Your task to perform on an android device: Do I have any events this weekend? Image 0: 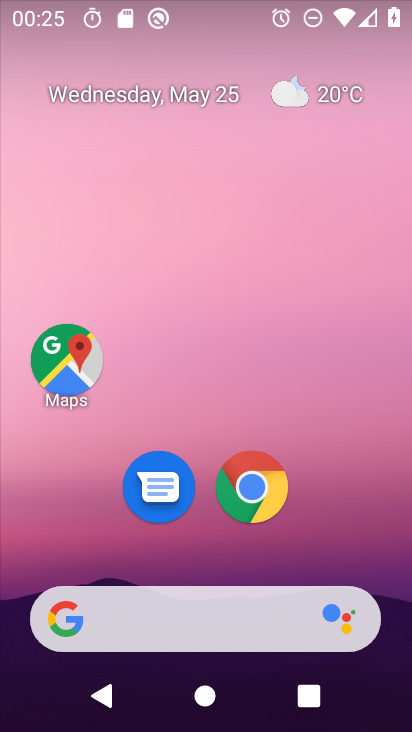
Step 0: drag from (357, 577) to (411, 30)
Your task to perform on an android device: Do I have any events this weekend? Image 1: 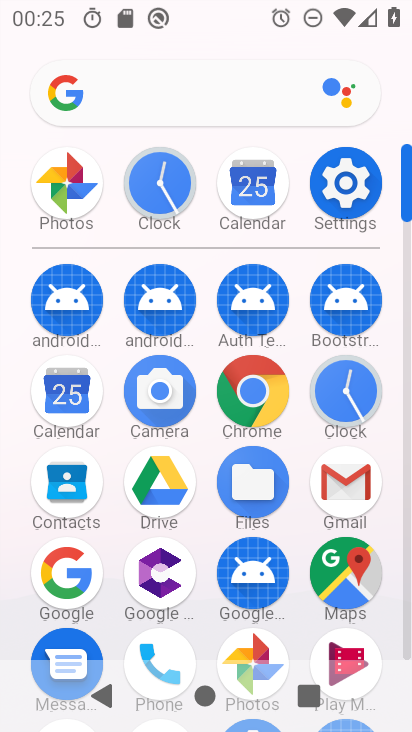
Step 1: click (54, 398)
Your task to perform on an android device: Do I have any events this weekend? Image 2: 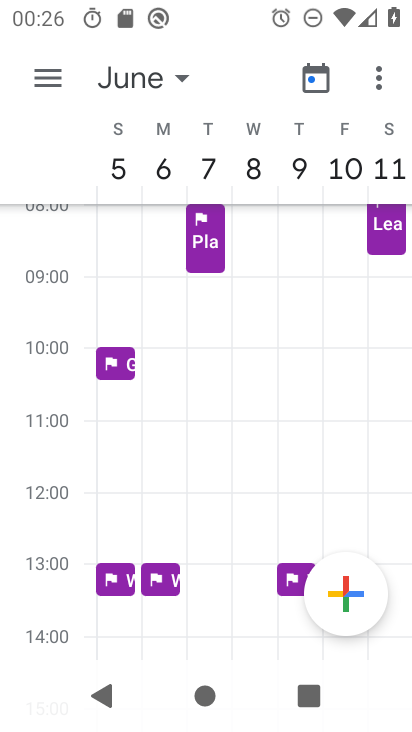
Step 2: click (323, 80)
Your task to perform on an android device: Do I have any events this weekend? Image 3: 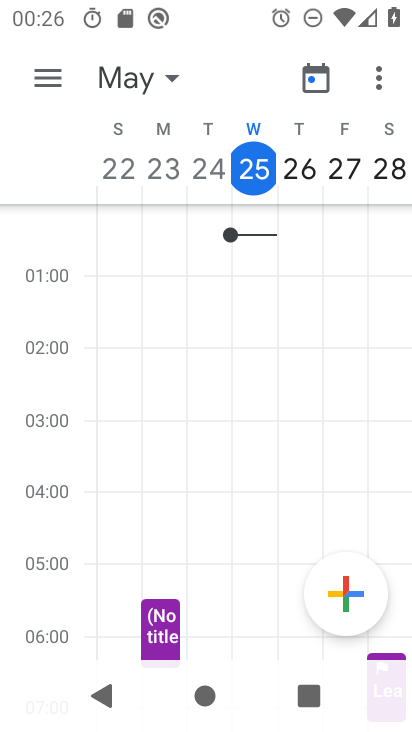
Step 3: drag from (307, 369) to (310, 163)
Your task to perform on an android device: Do I have any events this weekend? Image 4: 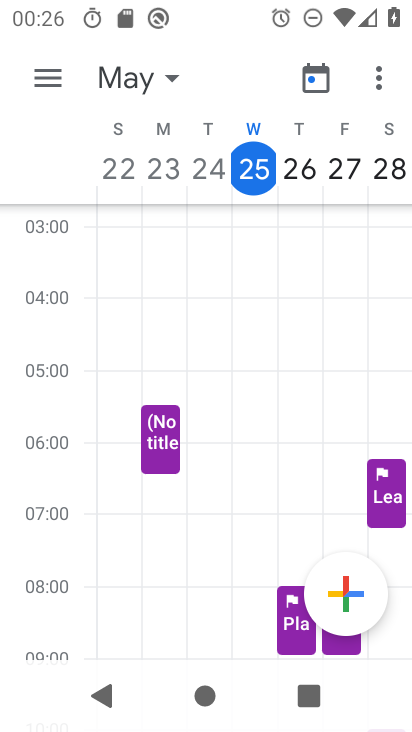
Step 4: drag from (272, 493) to (286, 121)
Your task to perform on an android device: Do I have any events this weekend? Image 5: 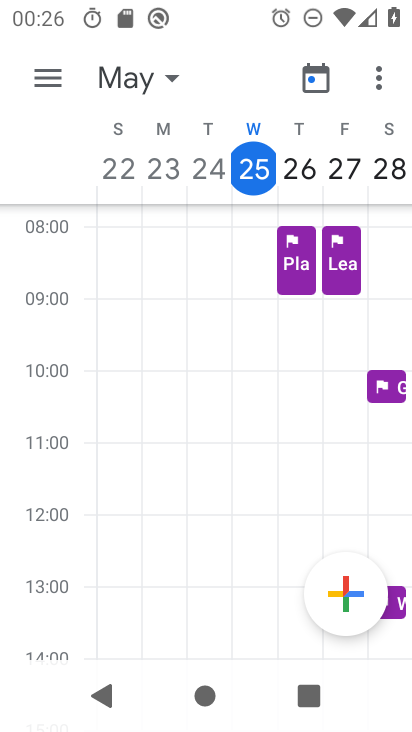
Step 5: click (391, 393)
Your task to perform on an android device: Do I have any events this weekend? Image 6: 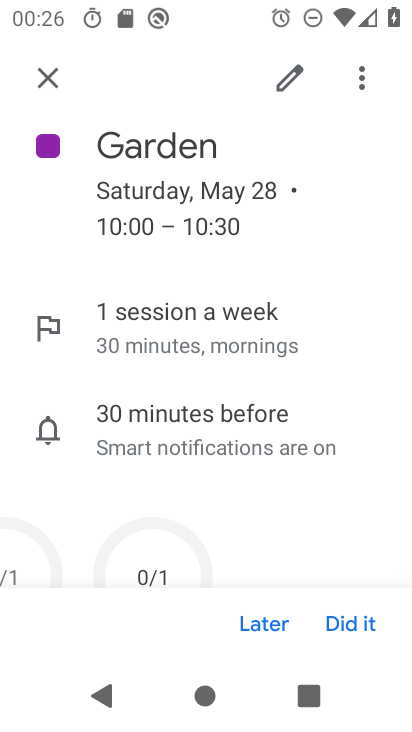
Step 6: task complete